Your task to perform on an android device: read, delete, or share a saved page in the chrome app Image 0: 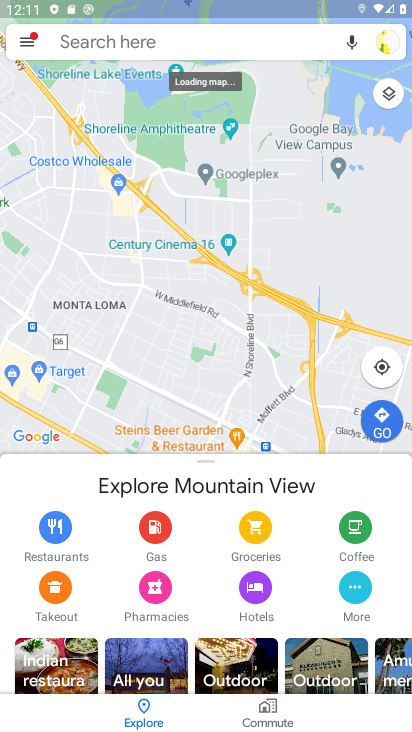
Step 0: press home button
Your task to perform on an android device: read, delete, or share a saved page in the chrome app Image 1: 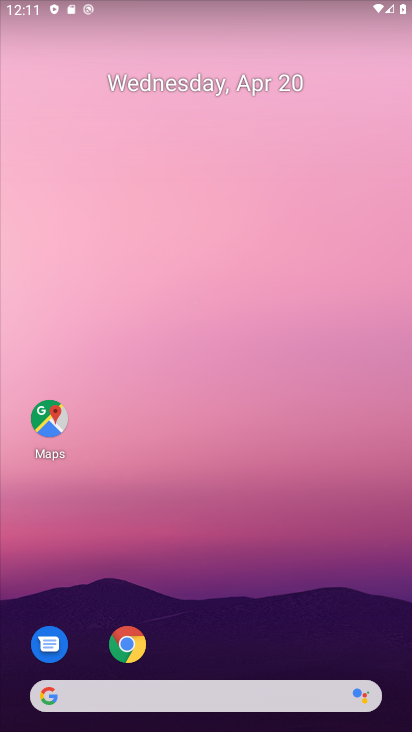
Step 1: click (130, 647)
Your task to perform on an android device: read, delete, or share a saved page in the chrome app Image 2: 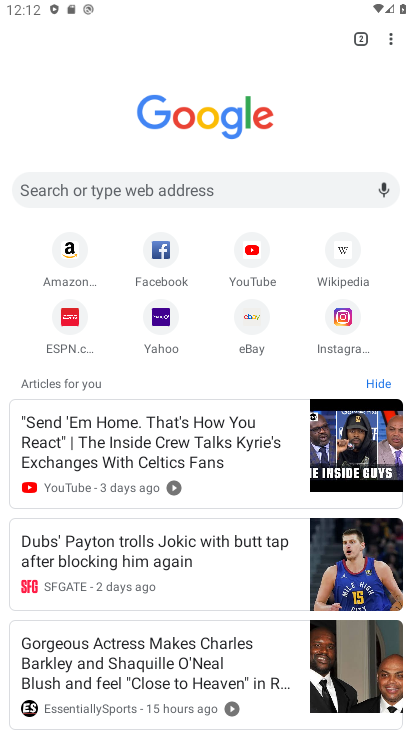
Step 2: drag from (392, 43) to (305, 263)
Your task to perform on an android device: read, delete, or share a saved page in the chrome app Image 3: 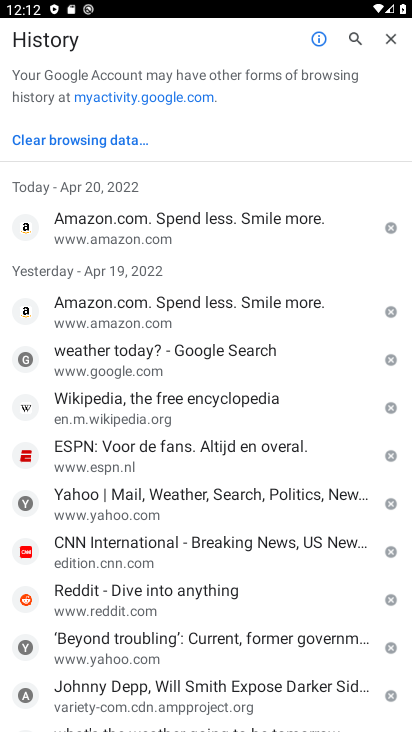
Step 3: click (273, 594)
Your task to perform on an android device: read, delete, or share a saved page in the chrome app Image 4: 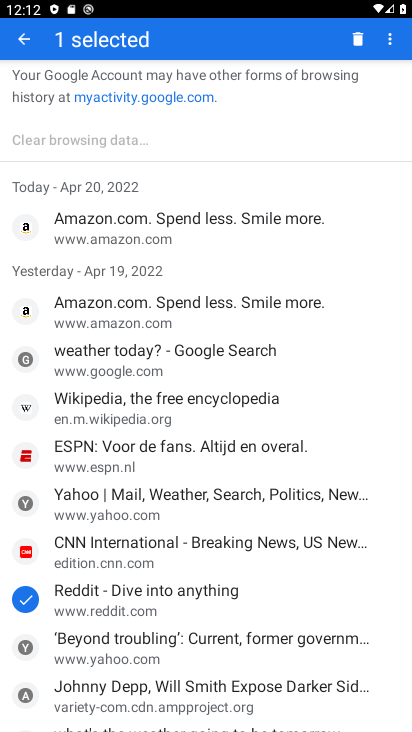
Step 4: click (225, 596)
Your task to perform on an android device: read, delete, or share a saved page in the chrome app Image 5: 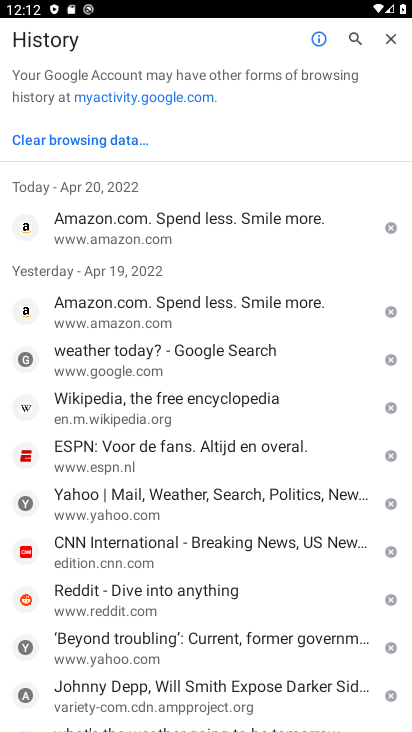
Step 5: click (230, 595)
Your task to perform on an android device: read, delete, or share a saved page in the chrome app Image 6: 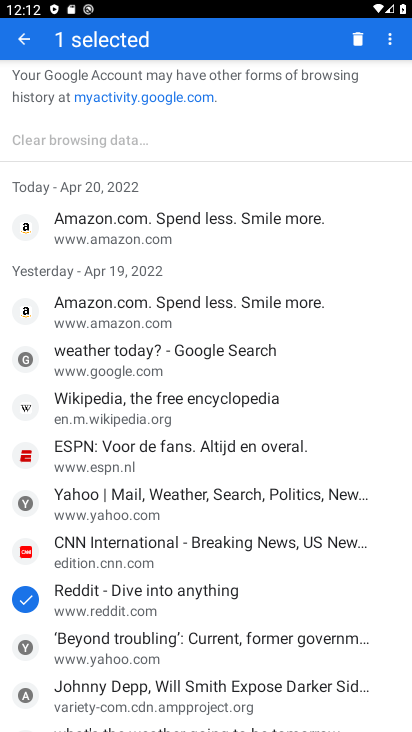
Step 6: click (362, 42)
Your task to perform on an android device: read, delete, or share a saved page in the chrome app Image 7: 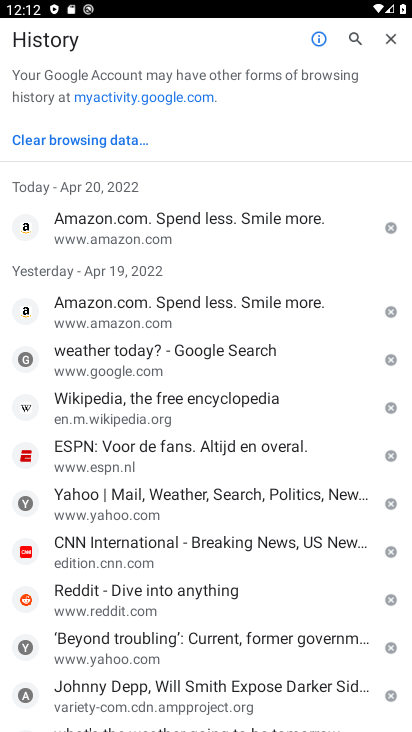
Step 7: task complete